Your task to perform on an android device: change timer sound Image 0: 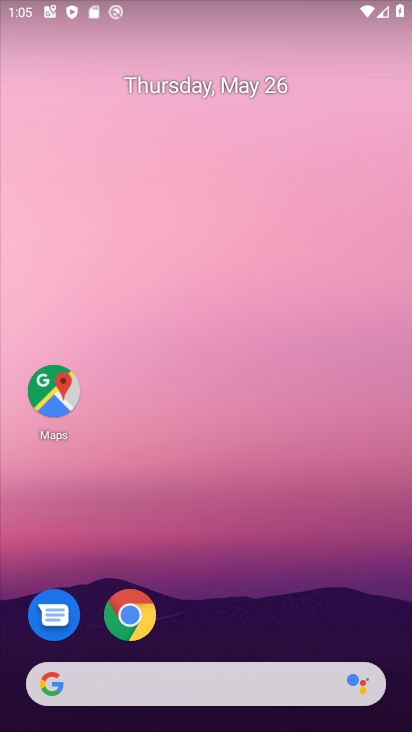
Step 0: drag from (210, 611) to (305, 134)
Your task to perform on an android device: change timer sound Image 1: 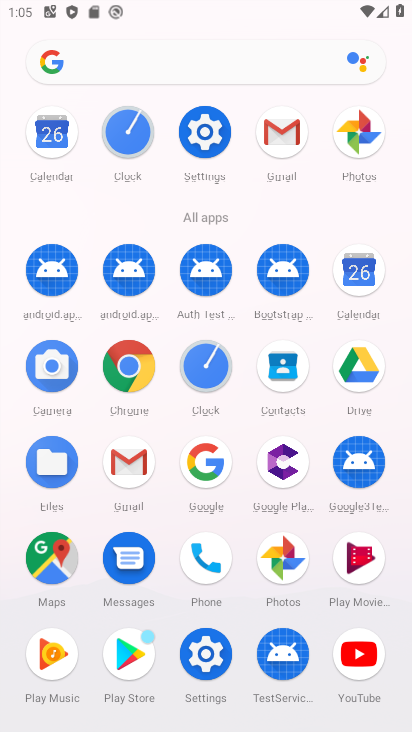
Step 1: click (208, 368)
Your task to perform on an android device: change timer sound Image 2: 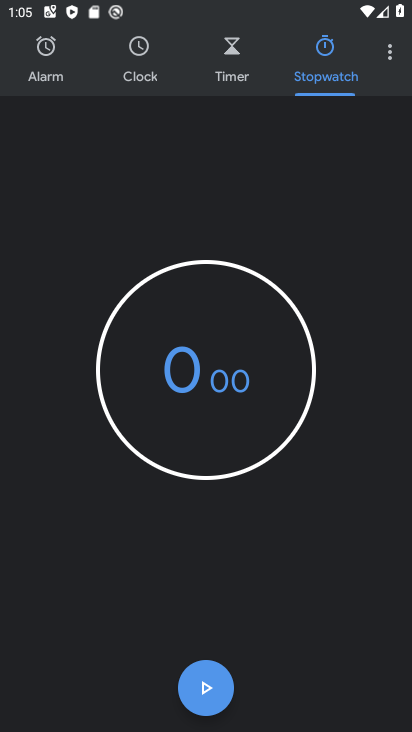
Step 2: click (380, 44)
Your task to perform on an android device: change timer sound Image 3: 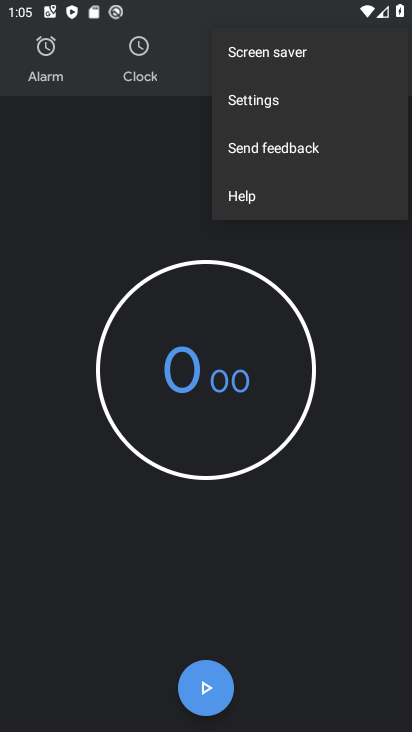
Step 3: click (247, 95)
Your task to perform on an android device: change timer sound Image 4: 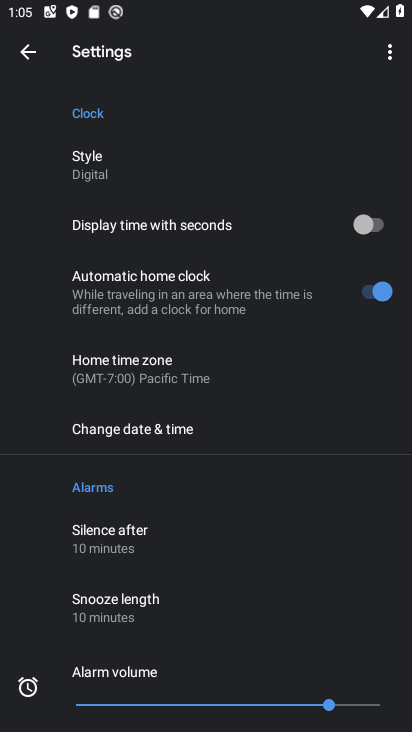
Step 4: drag from (143, 646) to (253, 198)
Your task to perform on an android device: change timer sound Image 5: 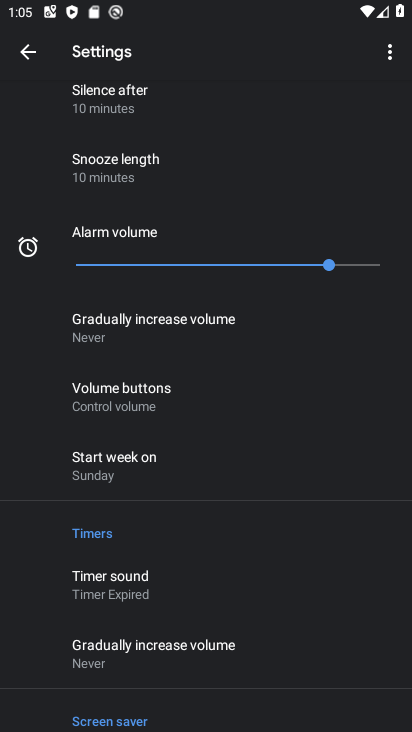
Step 5: click (141, 600)
Your task to perform on an android device: change timer sound Image 6: 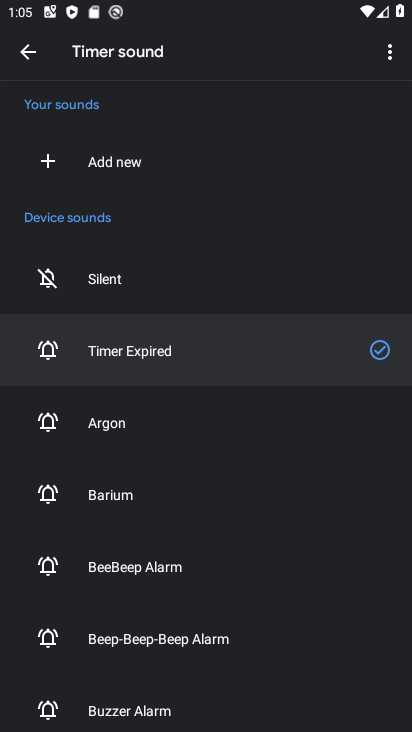
Step 6: click (110, 495)
Your task to perform on an android device: change timer sound Image 7: 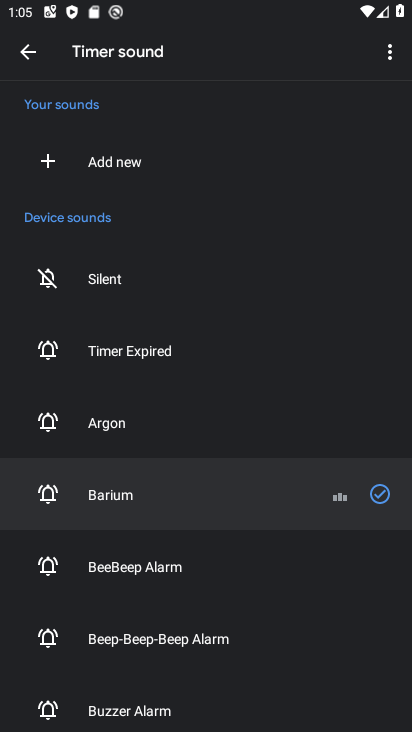
Step 7: task complete